Your task to perform on an android device: Toggle the flashlight Image 0: 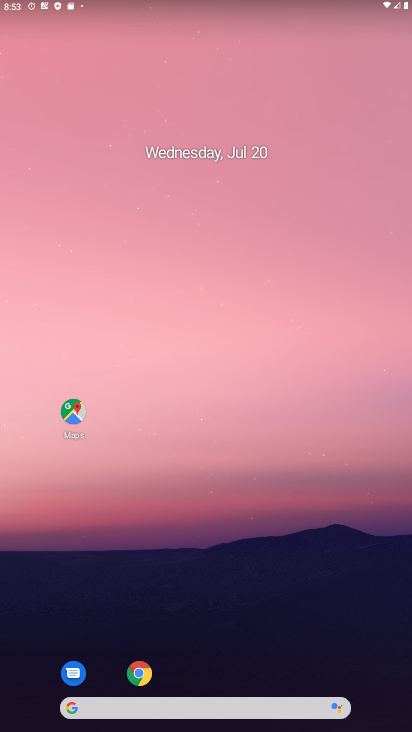
Step 0: drag from (291, 632) to (125, 60)
Your task to perform on an android device: Toggle the flashlight Image 1: 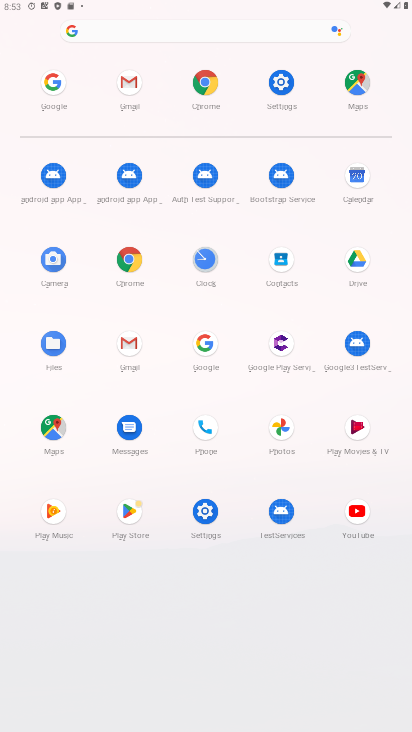
Step 1: click (287, 79)
Your task to perform on an android device: Toggle the flashlight Image 2: 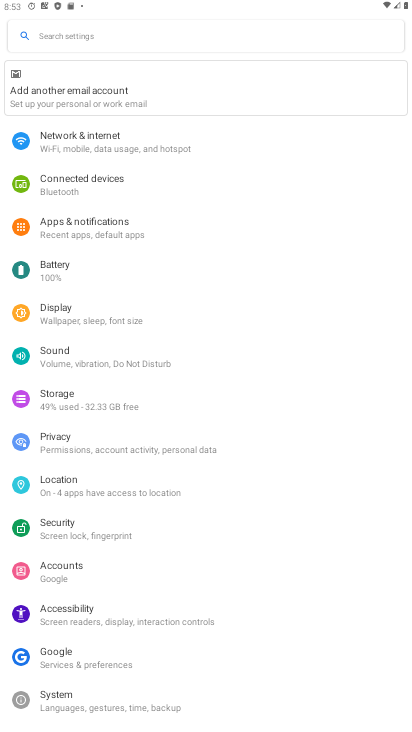
Step 2: task complete